Your task to perform on an android device: turn on the 24-hour format for clock Image 0: 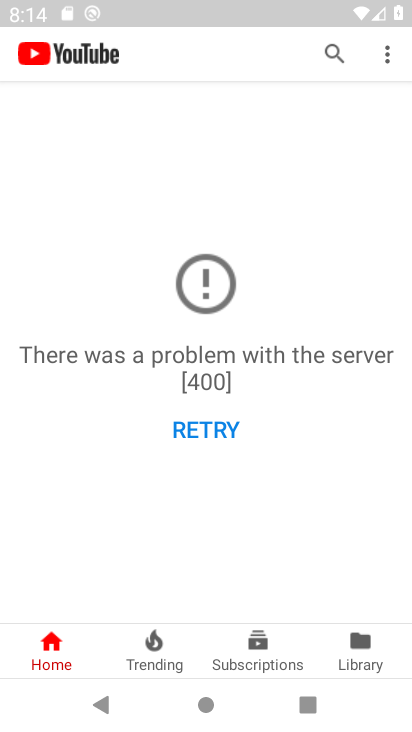
Step 0: press back button
Your task to perform on an android device: turn on the 24-hour format for clock Image 1: 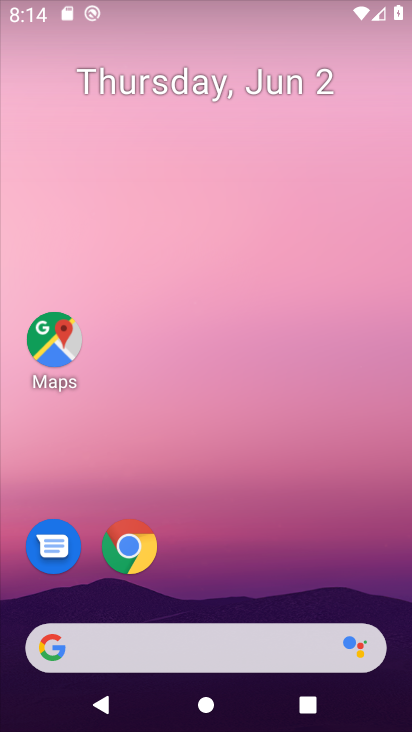
Step 1: drag from (319, 699) to (236, 165)
Your task to perform on an android device: turn on the 24-hour format for clock Image 2: 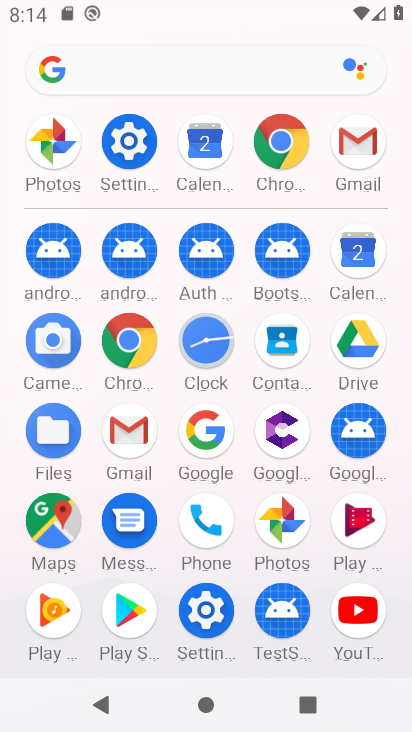
Step 2: click (192, 335)
Your task to perform on an android device: turn on the 24-hour format for clock Image 3: 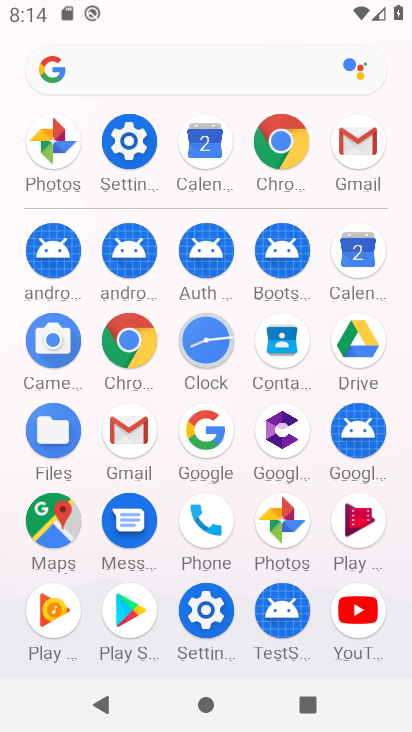
Step 3: click (189, 335)
Your task to perform on an android device: turn on the 24-hour format for clock Image 4: 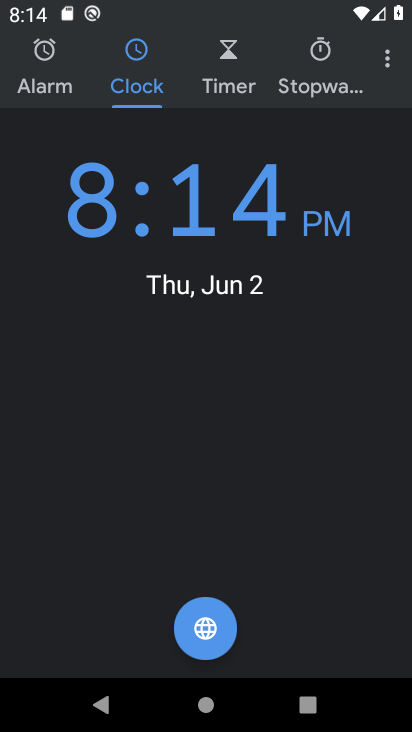
Step 4: click (393, 53)
Your task to perform on an android device: turn on the 24-hour format for clock Image 5: 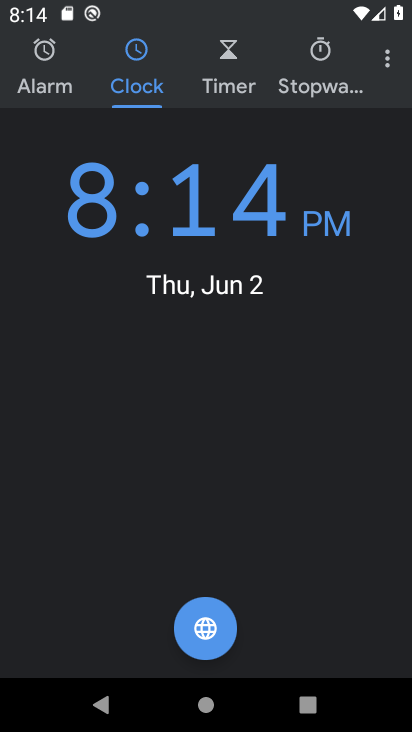
Step 5: click (388, 58)
Your task to perform on an android device: turn on the 24-hour format for clock Image 6: 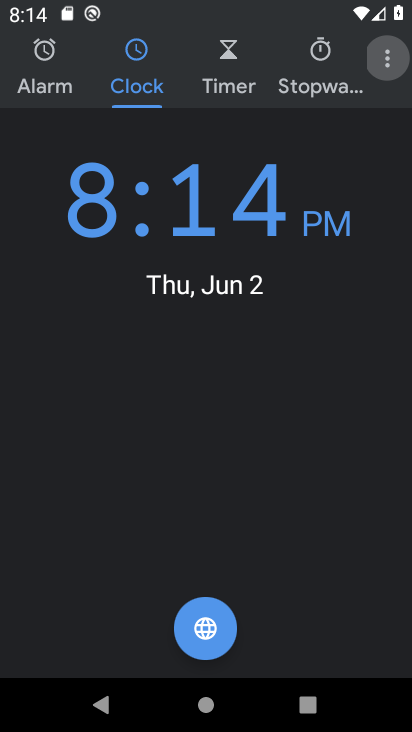
Step 6: click (387, 59)
Your task to perform on an android device: turn on the 24-hour format for clock Image 7: 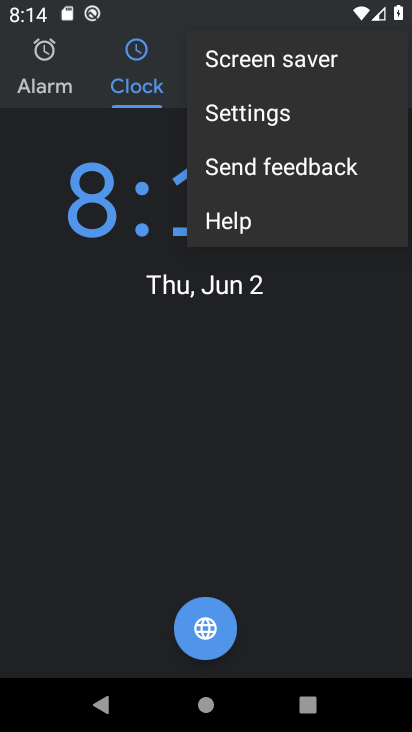
Step 7: click (254, 108)
Your task to perform on an android device: turn on the 24-hour format for clock Image 8: 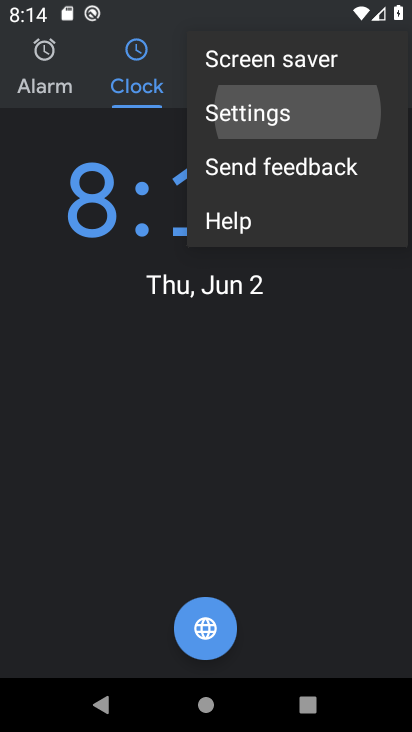
Step 8: click (254, 108)
Your task to perform on an android device: turn on the 24-hour format for clock Image 9: 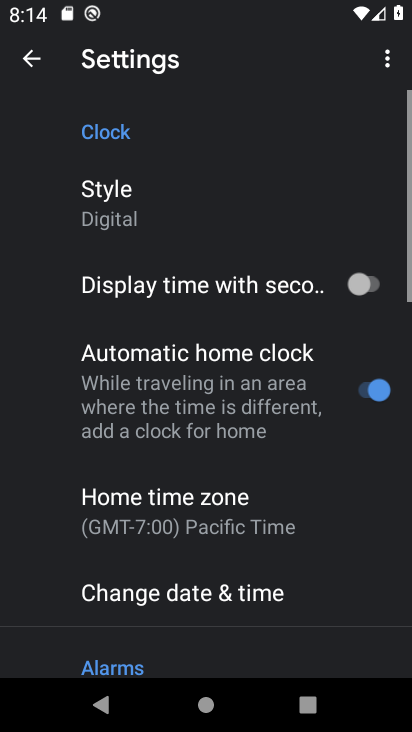
Step 9: drag from (213, 536) to (127, 20)
Your task to perform on an android device: turn on the 24-hour format for clock Image 10: 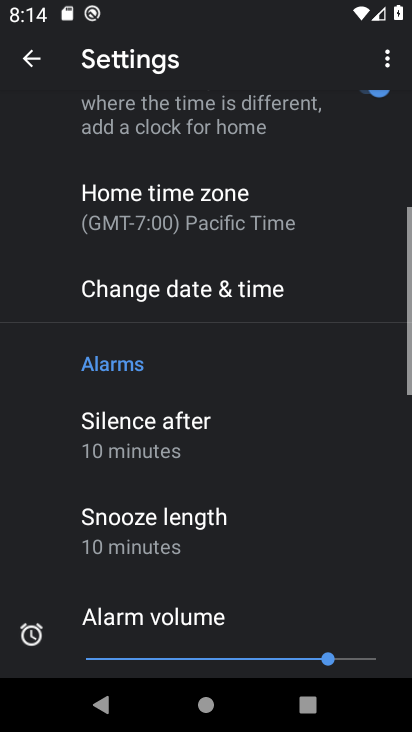
Step 10: drag from (178, 320) to (157, 112)
Your task to perform on an android device: turn on the 24-hour format for clock Image 11: 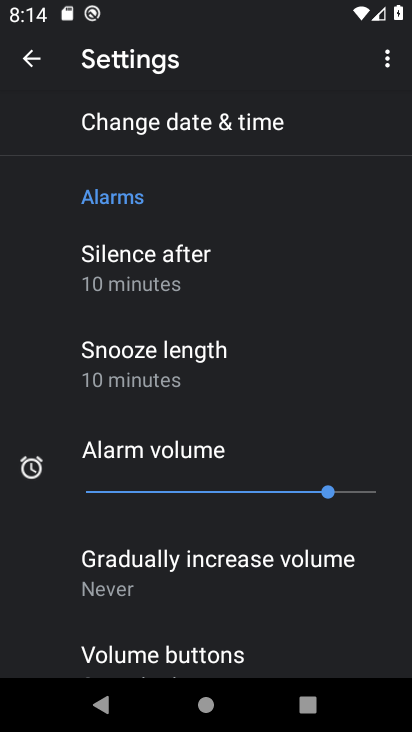
Step 11: click (187, 131)
Your task to perform on an android device: turn on the 24-hour format for clock Image 12: 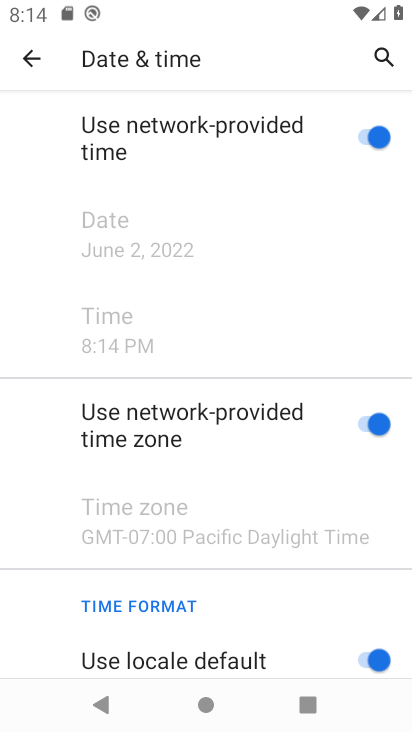
Step 12: click (273, 241)
Your task to perform on an android device: turn on the 24-hour format for clock Image 13: 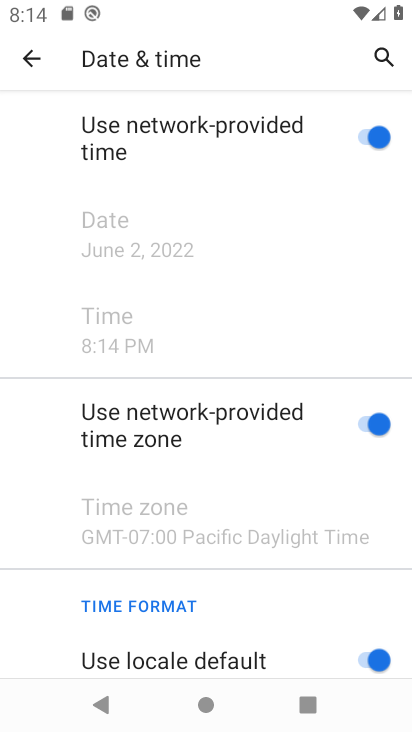
Step 13: task complete